Your task to perform on an android device: Search for sushi restaurants on Maps Image 0: 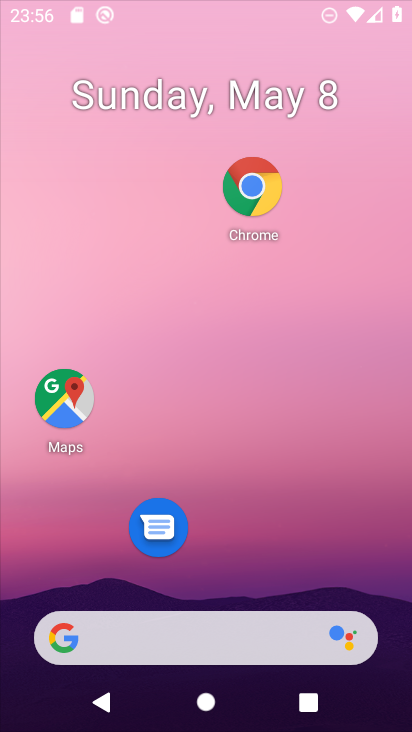
Step 0: click (383, 304)
Your task to perform on an android device: Search for sushi restaurants on Maps Image 1: 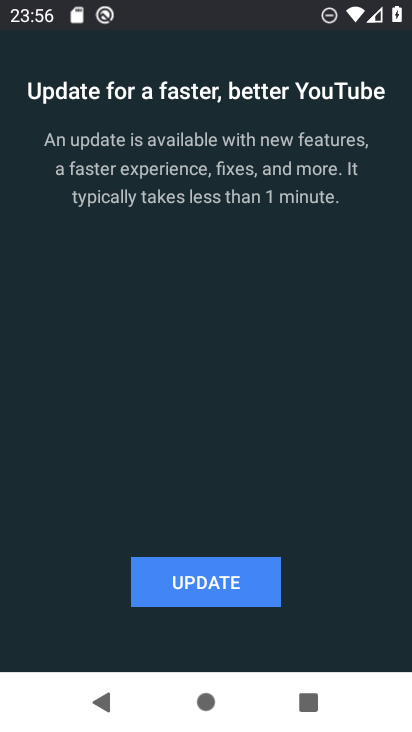
Step 1: press home button
Your task to perform on an android device: Search for sushi restaurants on Maps Image 2: 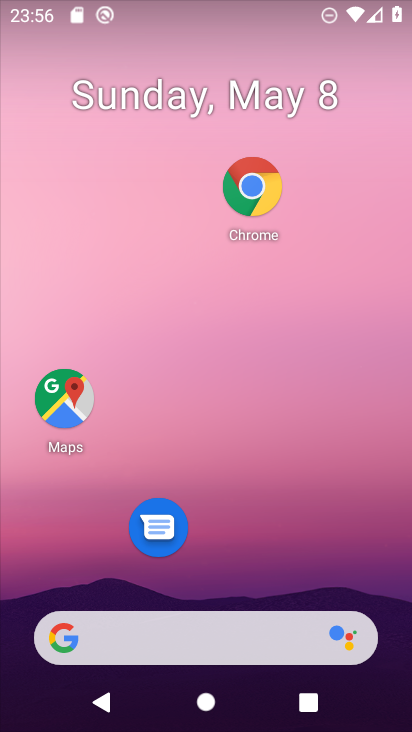
Step 2: click (72, 390)
Your task to perform on an android device: Search for sushi restaurants on Maps Image 3: 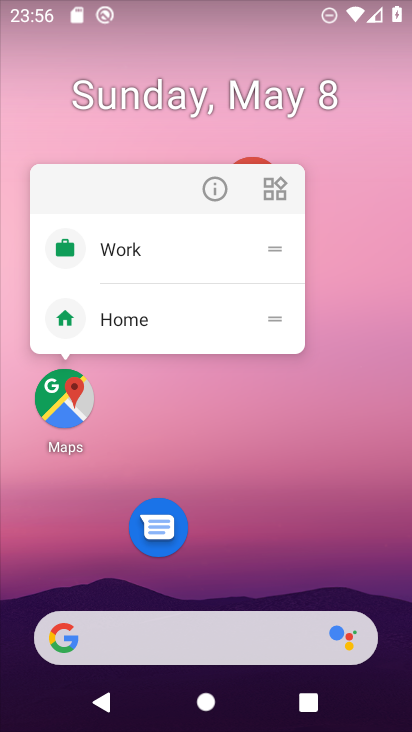
Step 3: click (69, 391)
Your task to perform on an android device: Search for sushi restaurants on Maps Image 4: 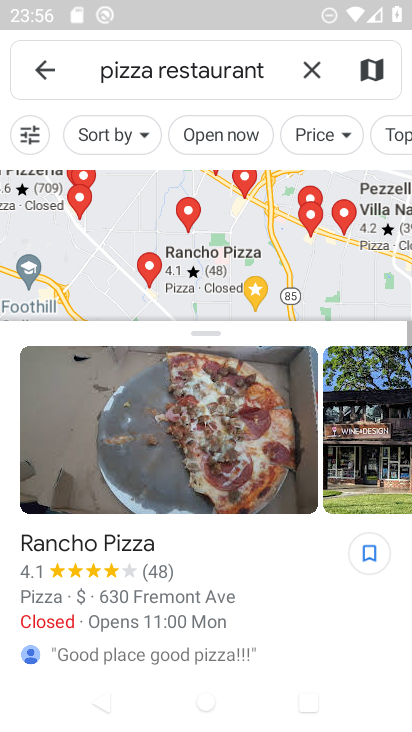
Step 4: click (319, 66)
Your task to perform on an android device: Search for sushi restaurants on Maps Image 5: 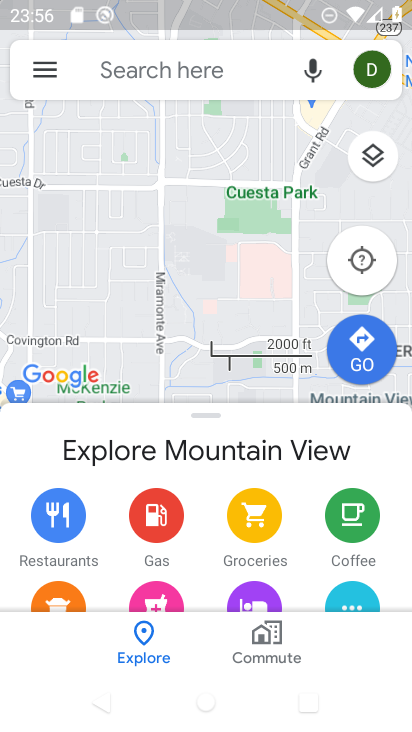
Step 5: click (217, 59)
Your task to perform on an android device: Search for sushi restaurants on Maps Image 6: 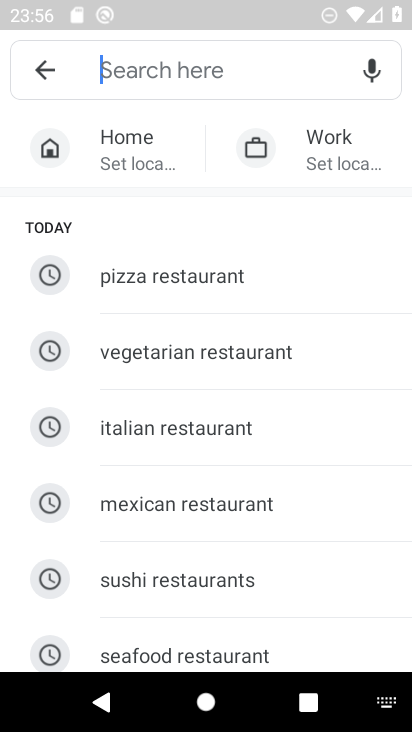
Step 6: click (171, 579)
Your task to perform on an android device: Search for sushi restaurants on Maps Image 7: 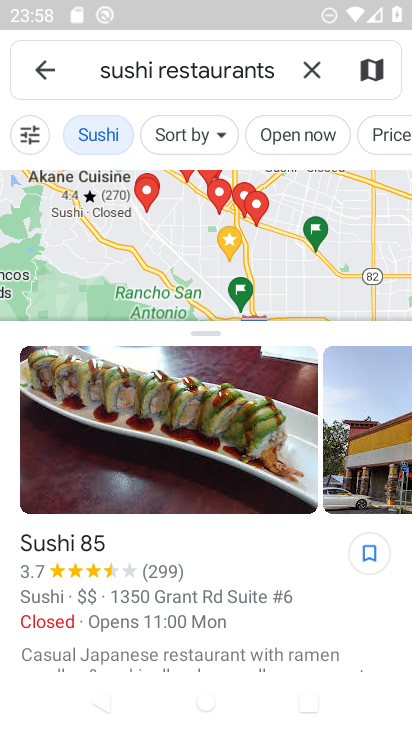
Step 7: task complete